Your task to perform on an android device: Do I have any events today? Image 0: 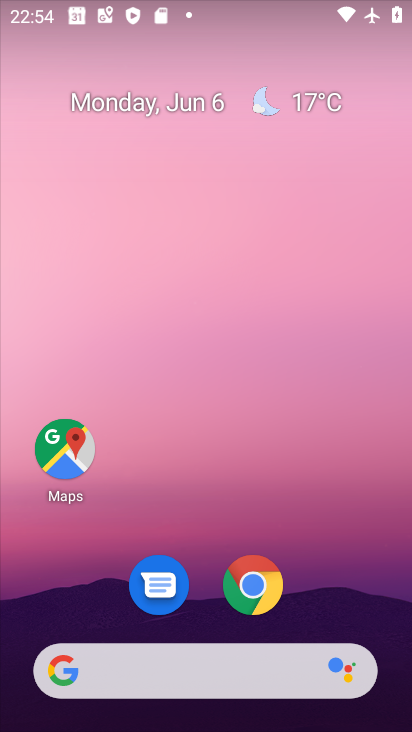
Step 0: drag from (206, 498) to (223, 0)
Your task to perform on an android device: Do I have any events today? Image 1: 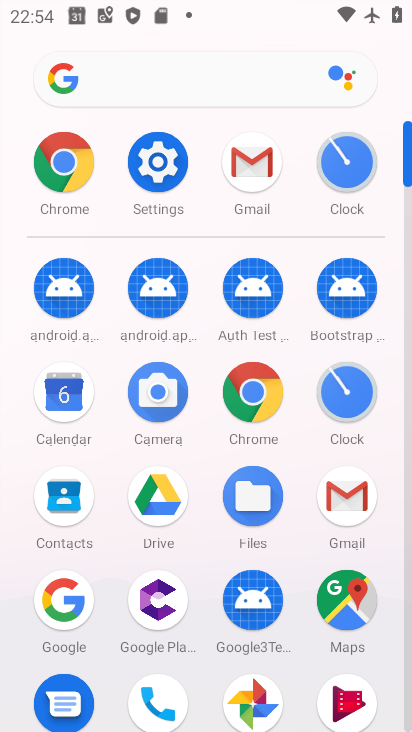
Step 1: click (74, 388)
Your task to perform on an android device: Do I have any events today? Image 2: 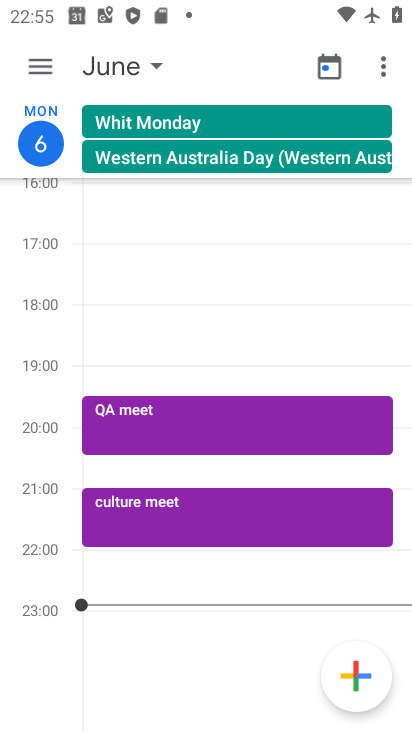
Step 2: click (39, 60)
Your task to perform on an android device: Do I have any events today? Image 3: 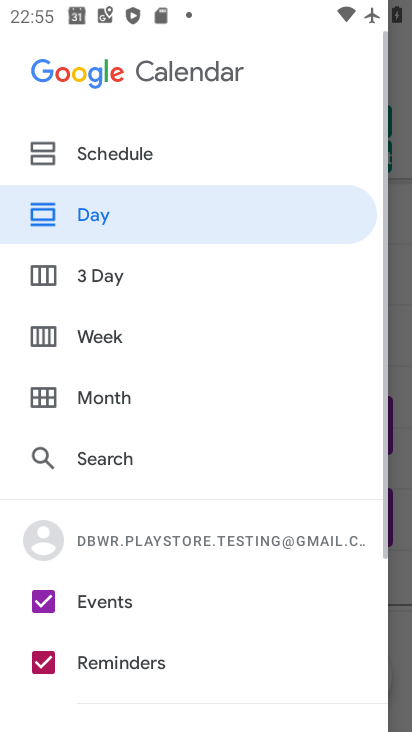
Step 3: click (98, 147)
Your task to perform on an android device: Do I have any events today? Image 4: 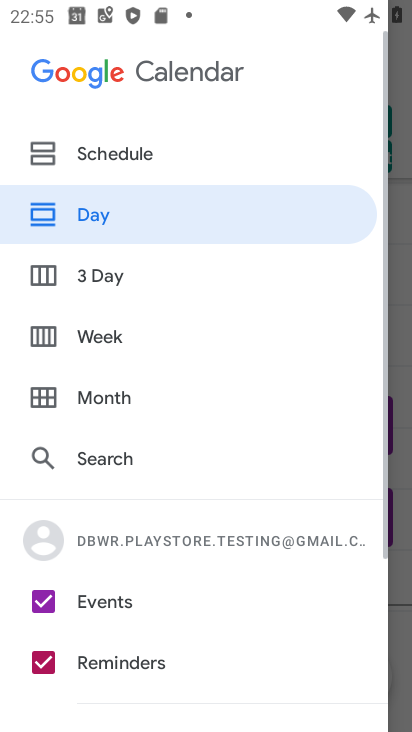
Step 4: click (45, 147)
Your task to perform on an android device: Do I have any events today? Image 5: 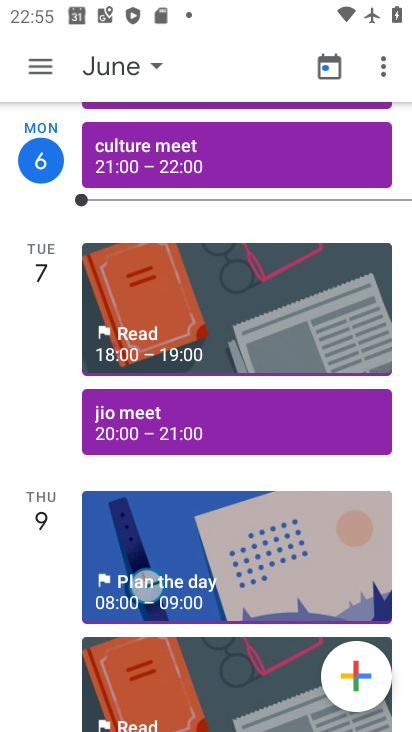
Step 5: task complete